Your task to perform on an android device: Open Youtube and go to "Your channel" Image 0: 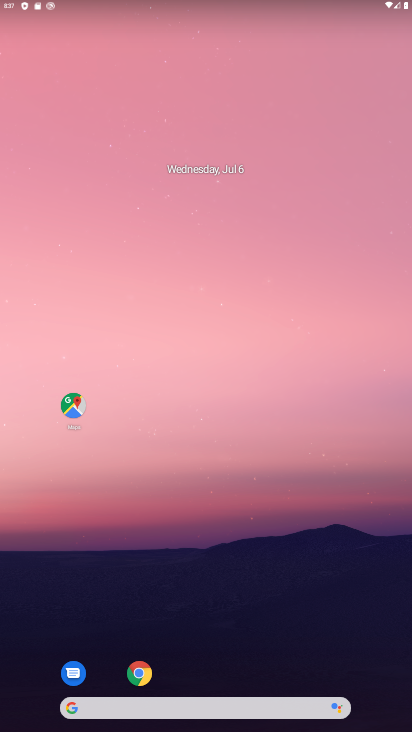
Step 0: drag from (231, 600) to (275, 85)
Your task to perform on an android device: Open Youtube and go to "Your channel" Image 1: 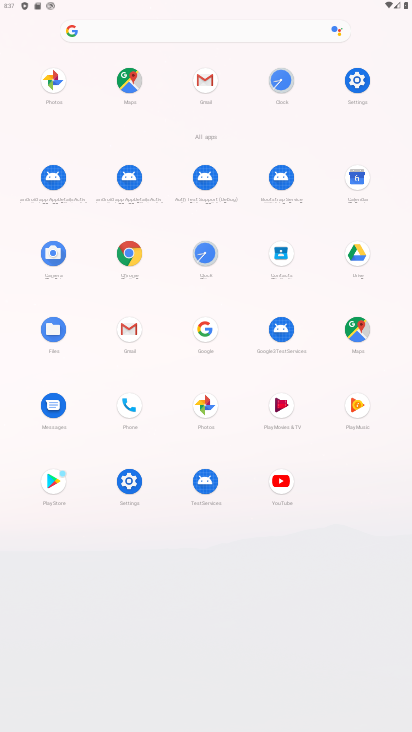
Step 1: click (280, 490)
Your task to perform on an android device: Open Youtube and go to "Your channel" Image 2: 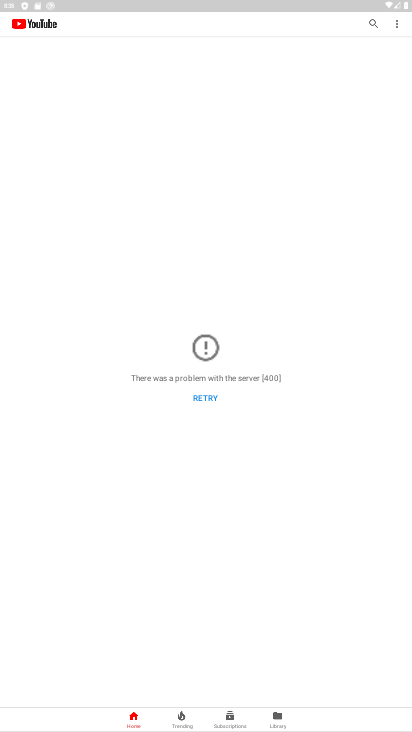
Step 2: click (205, 396)
Your task to perform on an android device: Open Youtube and go to "Your channel" Image 3: 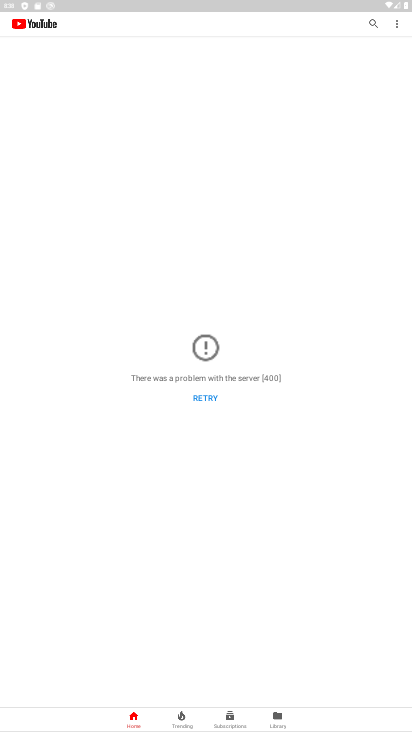
Step 3: click (279, 719)
Your task to perform on an android device: Open Youtube and go to "Your channel" Image 4: 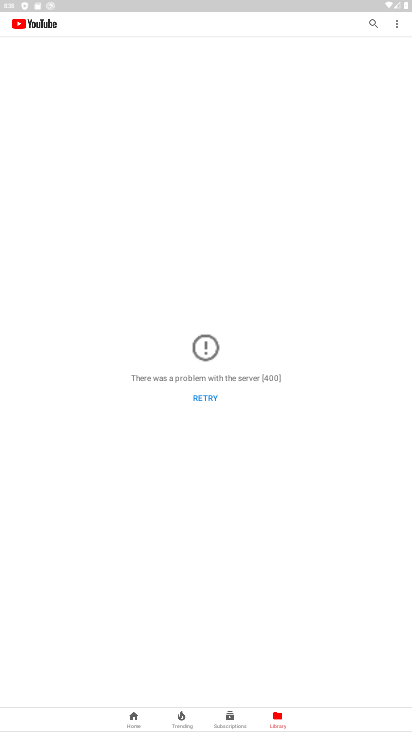
Step 4: click (407, 24)
Your task to perform on an android device: Open Youtube and go to "Your channel" Image 5: 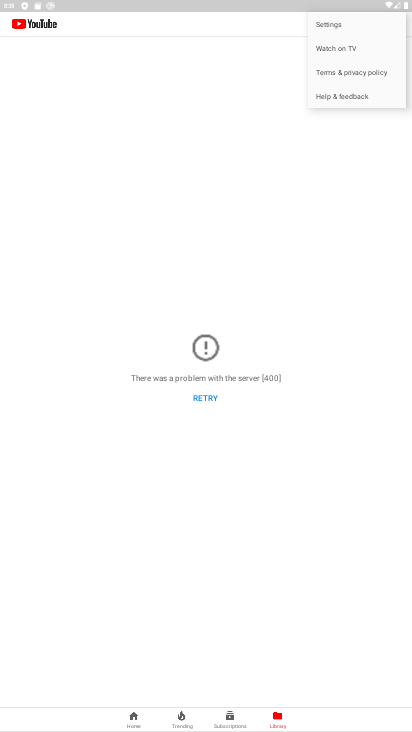
Step 5: click (344, 29)
Your task to perform on an android device: Open Youtube and go to "Your channel" Image 6: 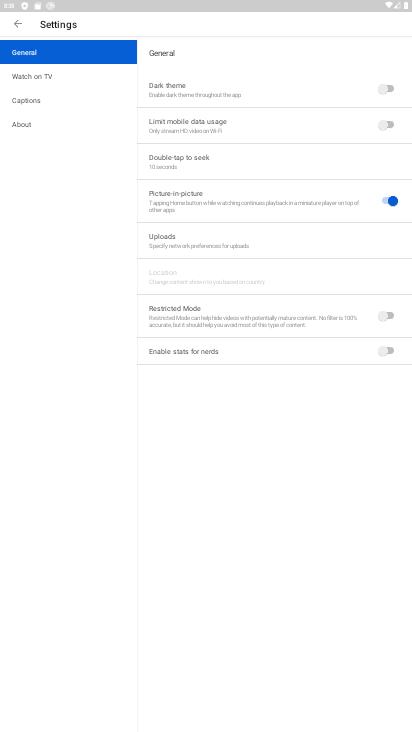
Step 6: task complete